Your task to perform on an android device: Find coffee shops on Maps Image 0: 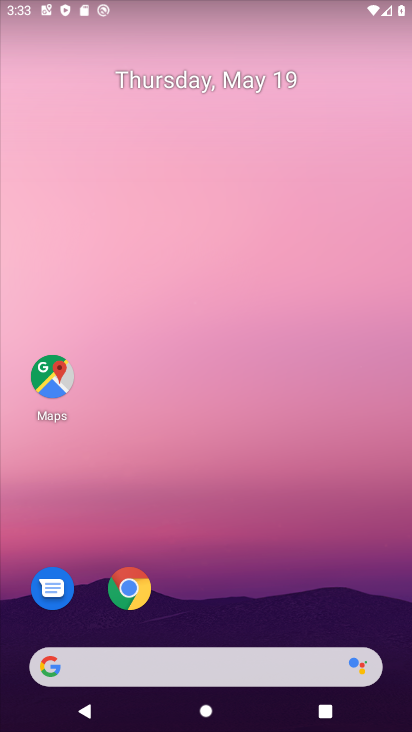
Step 0: click (50, 393)
Your task to perform on an android device: Find coffee shops on Maps Image 1: 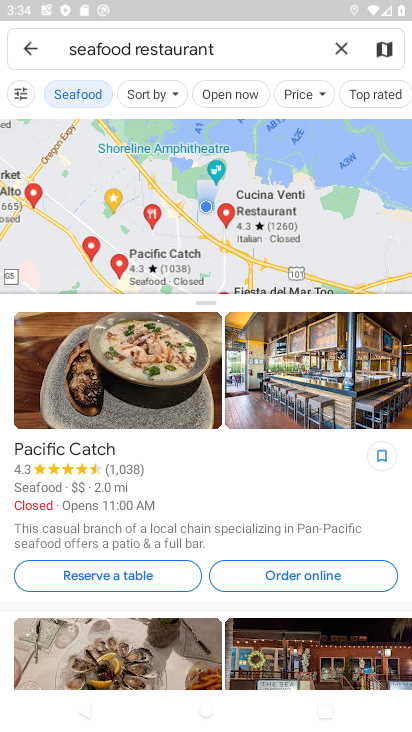
Step 1: click (341, 46)
Your task to perform on an android device: Find coffee shops on Maps Image 2: 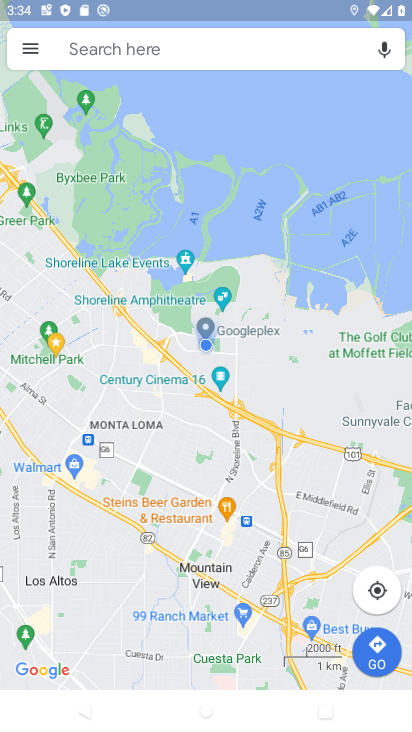
Step 2: click (169, 51)
Your task to perform on an android device: Find coffee shops on Maps Image 3: 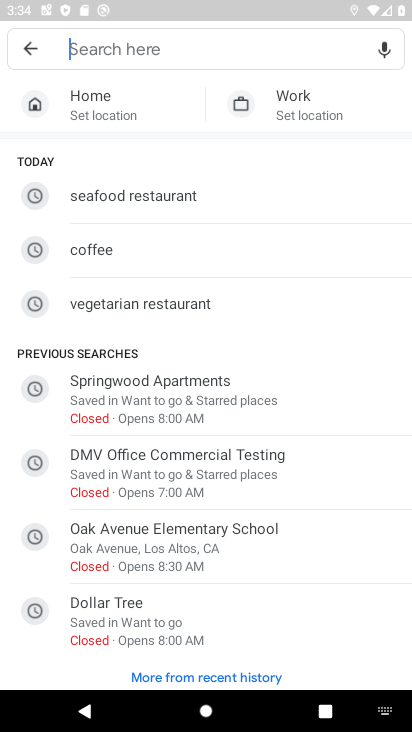
Step 3: click (139, 248)
Your task to perform on an android device: Find coffee shops on Maps Image 4: 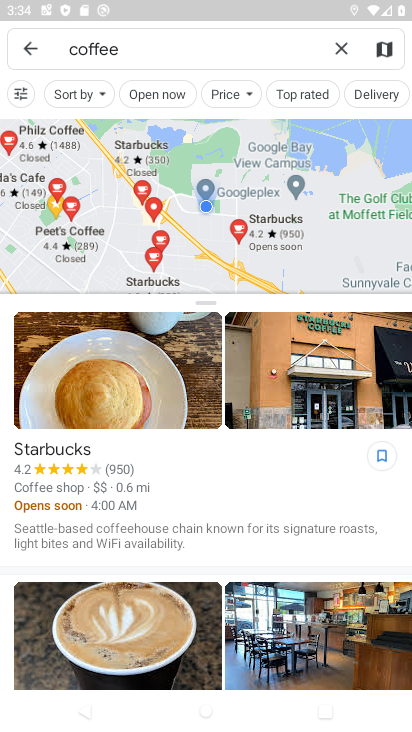
Step 4: task complete